Your task to perform on an android device: Do I have any events this weekend? Image 0: 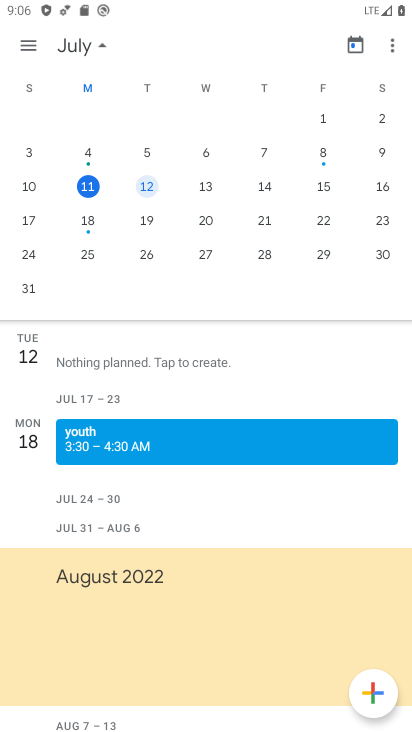
Step 0: click (383, 186)
Your task to perform on an android device: Do I have any events this weekend? Image 1: 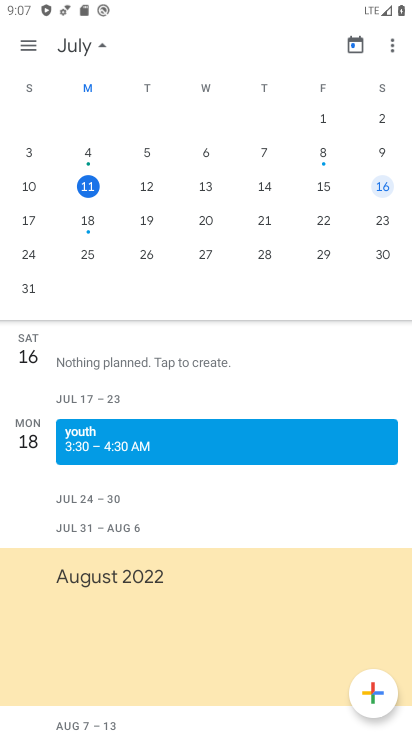
Step 1: task complete